Your task to perform on an android device: change the clock display to show seconds Image 0: 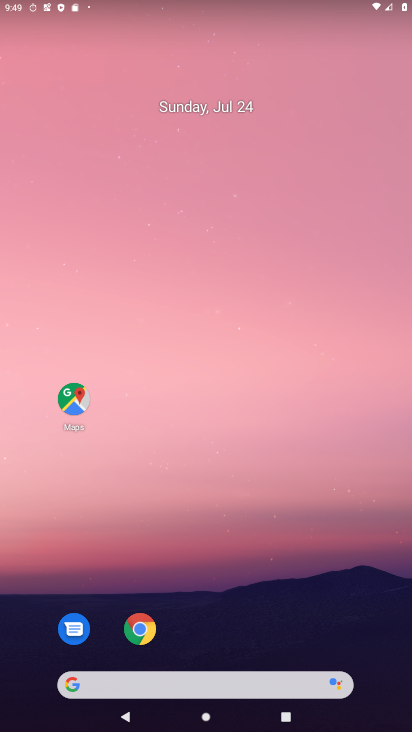
Step 0: drag from (239, 366) to (243, 73)
Your task to perform on an android device: change the clock display to show seconds Image 1: 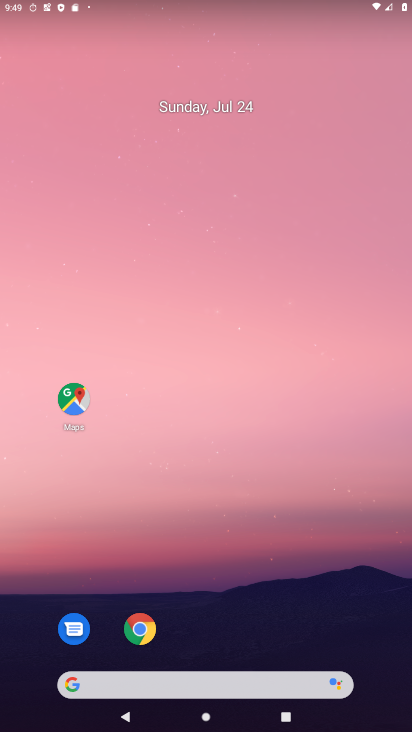
Step 1: drag from (219, 654) to (168, 13)
Your task to perform on an android device: change the clock display to show seconds Image 2: 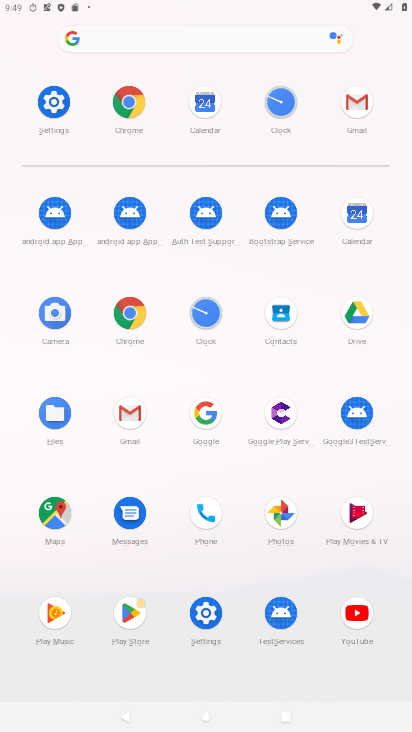
Step 2: click (214, 331)
Your task to perform on an android device: change the clock display to show seconds Image 3: 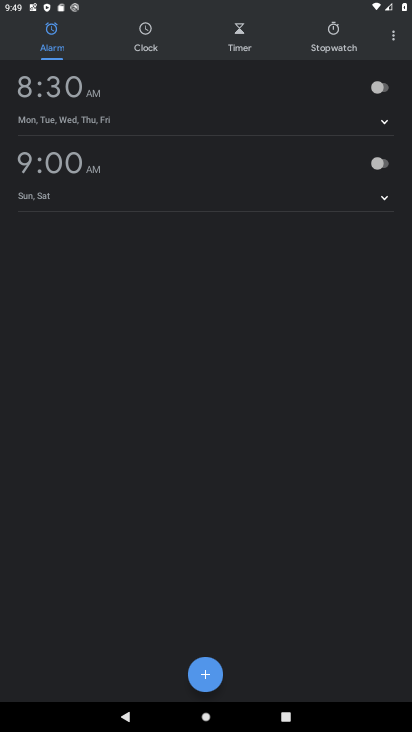
Step 3: click (393, 43)
Your task to perform on an android device: change the clock display to show seconds Image 4: 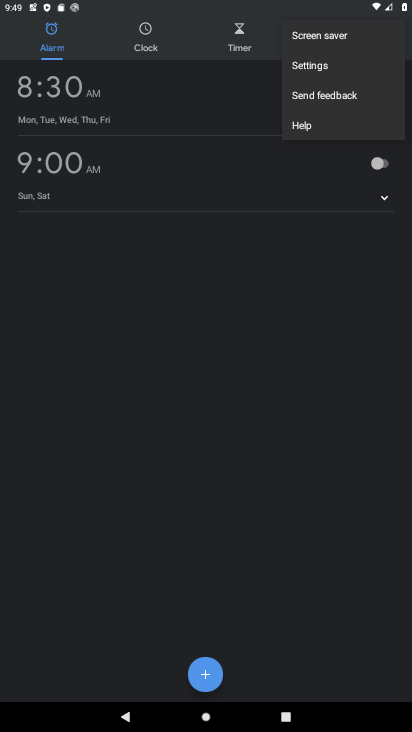
Step 4: click (326, 67)
Your task to perform on an android device: change the clock display to show seconds Image 5: 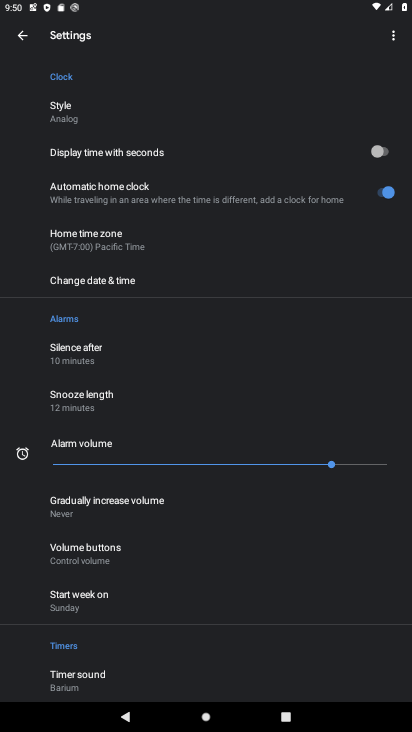
Step 5: click (199, 158)
Your task to perform on an android device: change the clock display to show seconds Image 6: 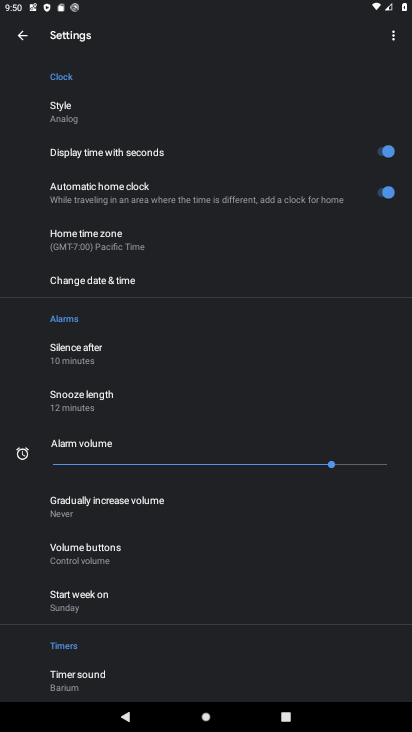
Step 6: task complete